Your task to perform on an android device: see tabs open on other devices in the chrome app Image 0: 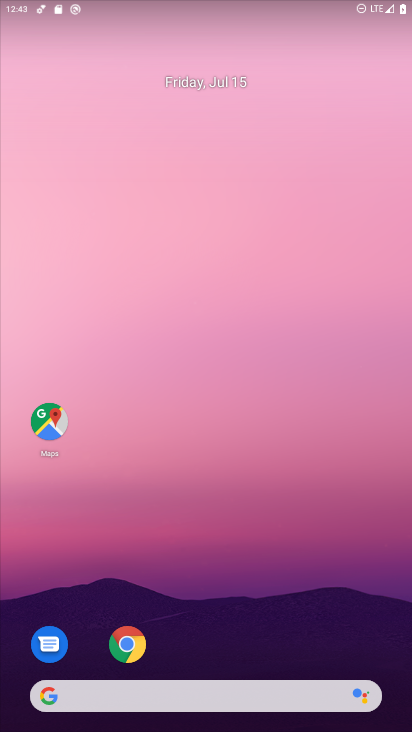
Step 0: click (128, 643)
Your task to perform on an android device: see tabs open on other devices in the chrome app Image 1: 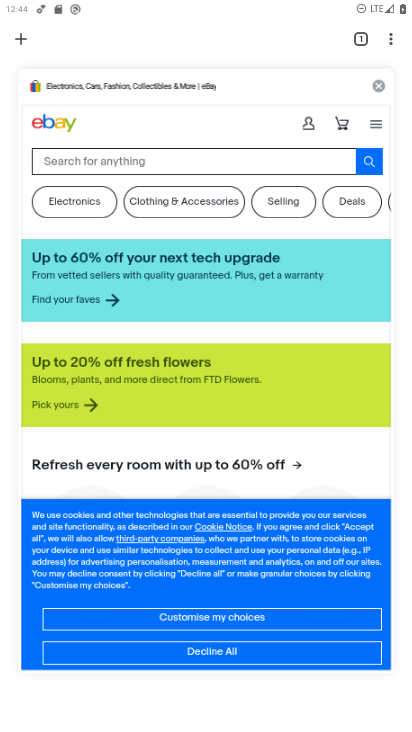
Step 1: task complete